Your task to perform on an android device: delete location history Image 0: 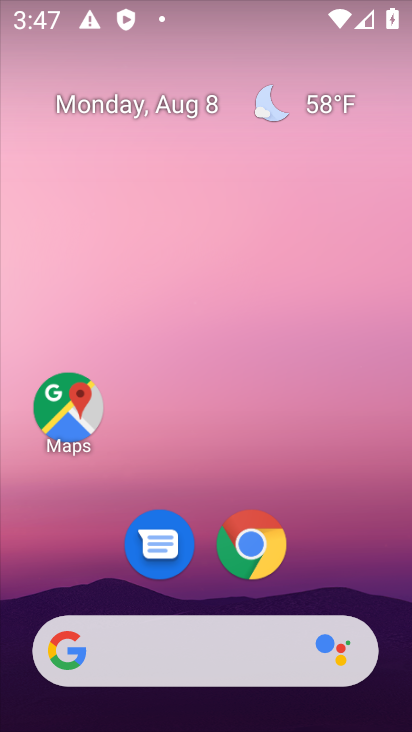
Step 0: drag from (246, 600) to (315, 23)
Your task to perform on an android device: delete location history Image 1: 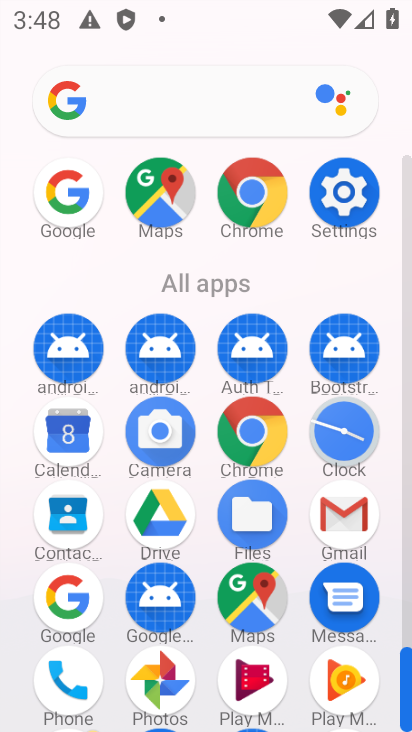
Step 1: click (352, 215)
Your task to perform on an android device: delete location history Image 2: 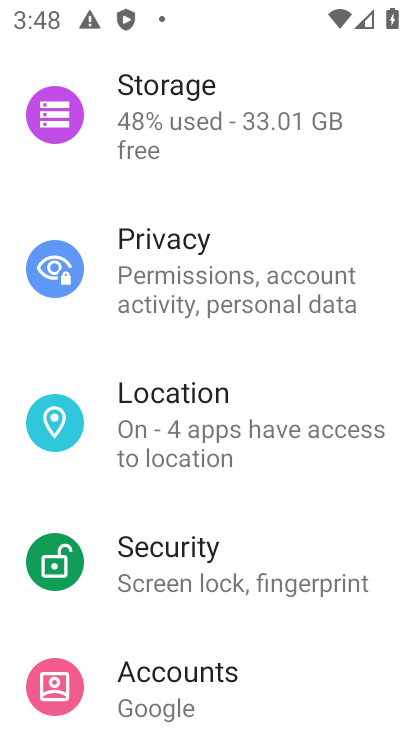
Step 2: drag from (233, 621) to (295, 485)
Your task to perform on an android device: delete location history Image 3: 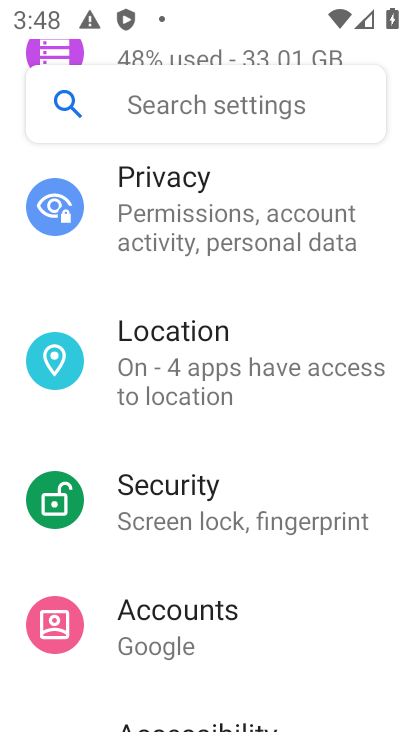
Step 3: click (208, 354)
Your task to perform on an android device: delete location history Image 4: 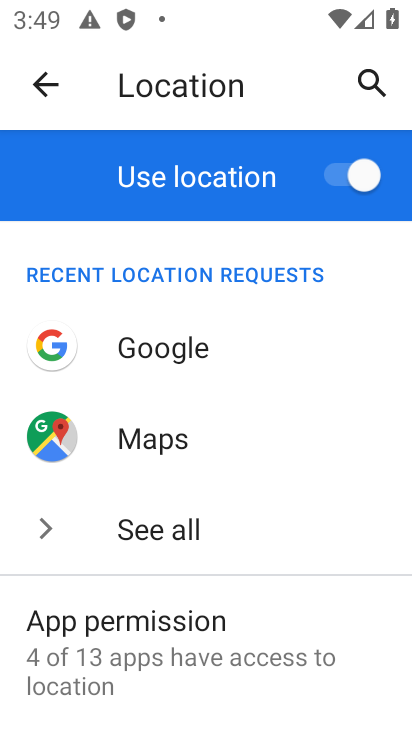
Step 4: drag from (261, 594) to (305, 260)
Your task to perform on an android device: delete location history Image 5: 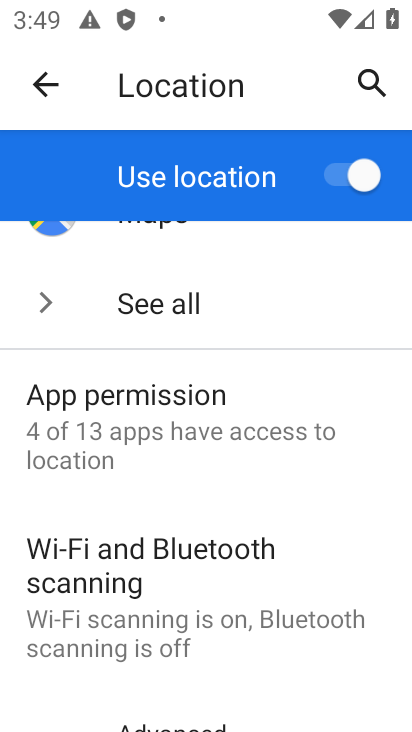
Step 5: drag from (265, 605) to (321, 276)
Your task to perform on an android device: delete location history Image 6: 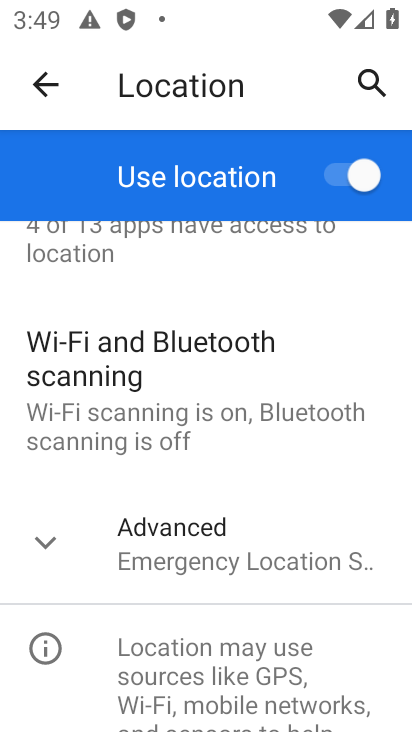
Step 6: click (249, 555)
Your task to perform on an android device: delete location history Image 7: 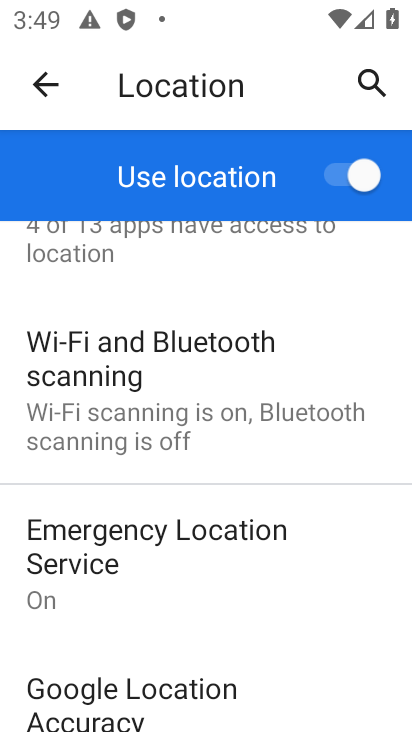
Step 7: drag from (227, 634) to (282, 222)
Your task to perform on an android device: delete location history Image 8: 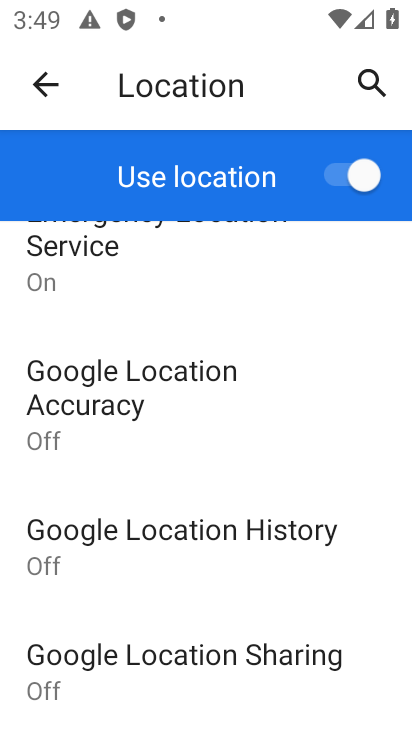
Step 8: click (285, 543)
Your task to perform on an android device: delete location history Image 9: 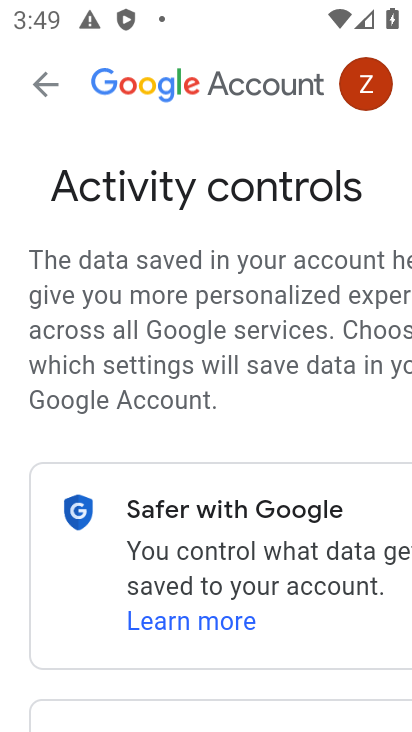
Step 9: drag from (320, 568) to (97, 145)
Your task to perform on an android device: delete location history Image 10: 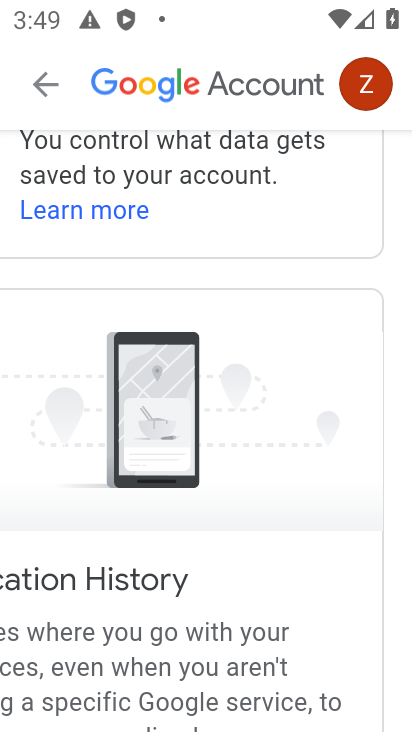
Step 10: drag from (187, 505) to (238, 203)
Your task to perform on an android device: delete location history Image 11: 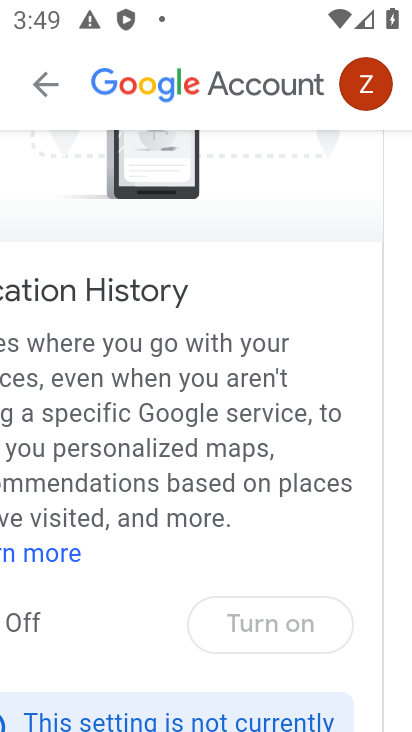
Step 11: drag from (253, 615) to (305, 216)
Your task to perform on an android device: delete location history Image 12: 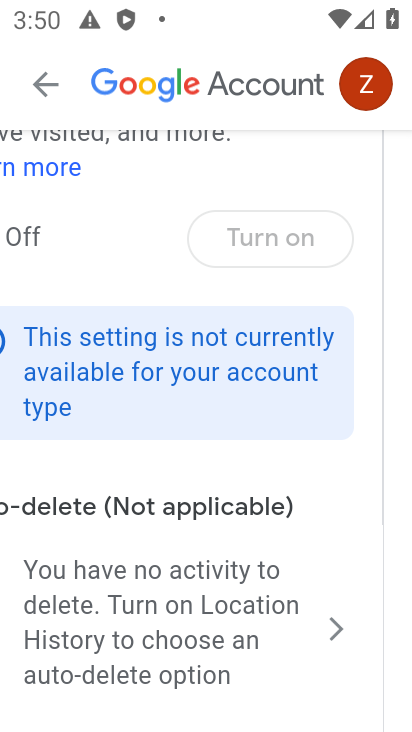
Step 12: drag from (240, 617) to (294, 317)
Your task to perform on an android device: delete location history Image 13: 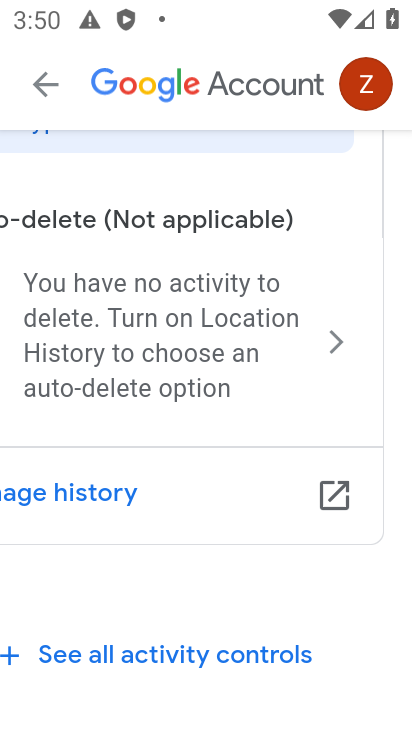
Step 13: click (290, 377)
Your task to perform on an android device: delete location history Image 14: 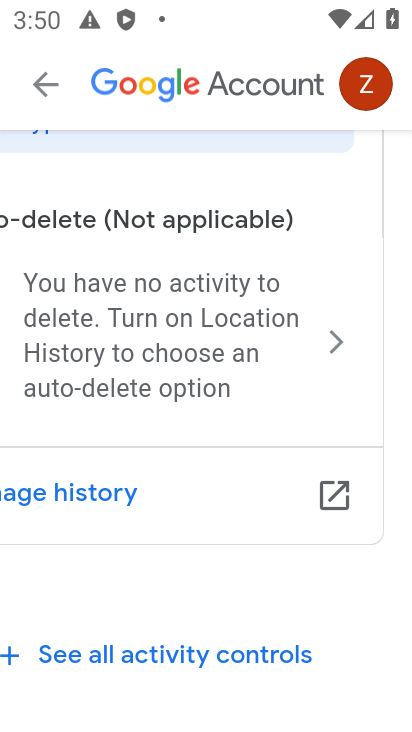
Step 14: click (291, 362)
Your task to perform on an android device: delete location history Image 15: 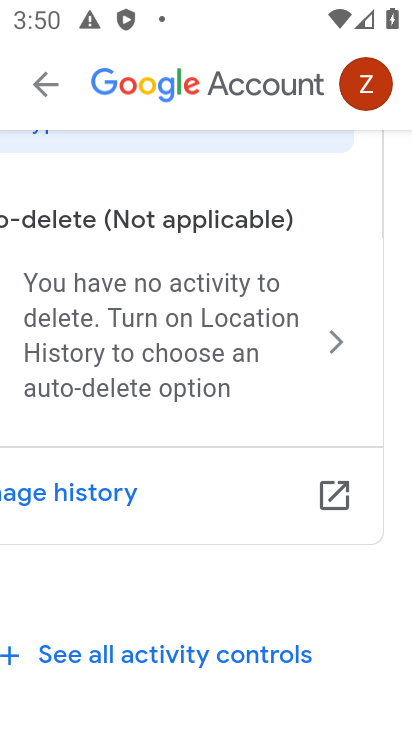
Step 15: click (284, 353)
Your task to perform on an android device: delete location history Image 16: 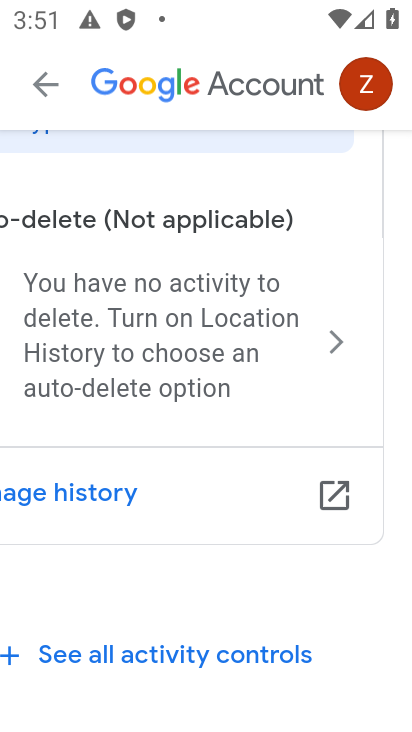
Step 16: task complete